Your task to perform on an android device: Check the news Image 0: 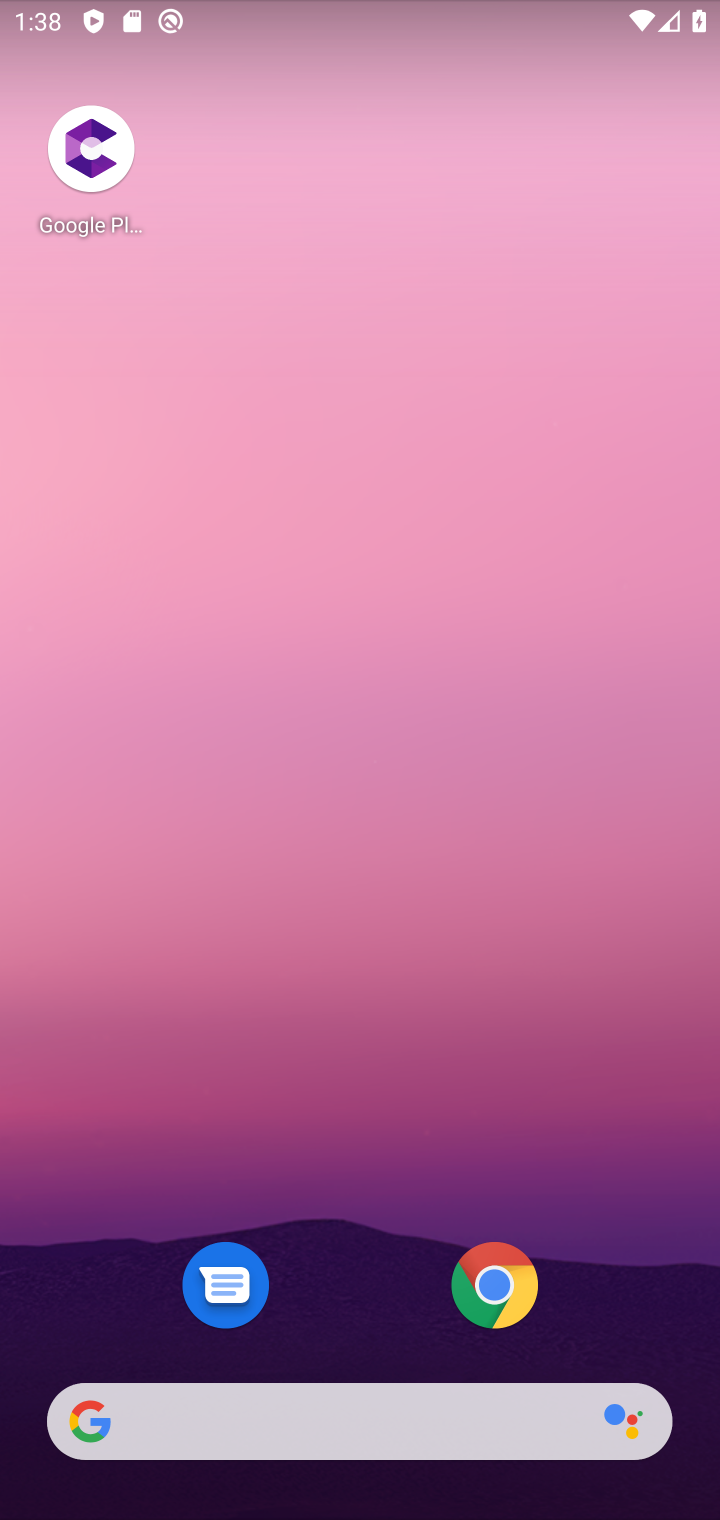
Step 0: drag from (13, 712) to (685, 810)
Your task to perform on an android device: Check the news Image 1: 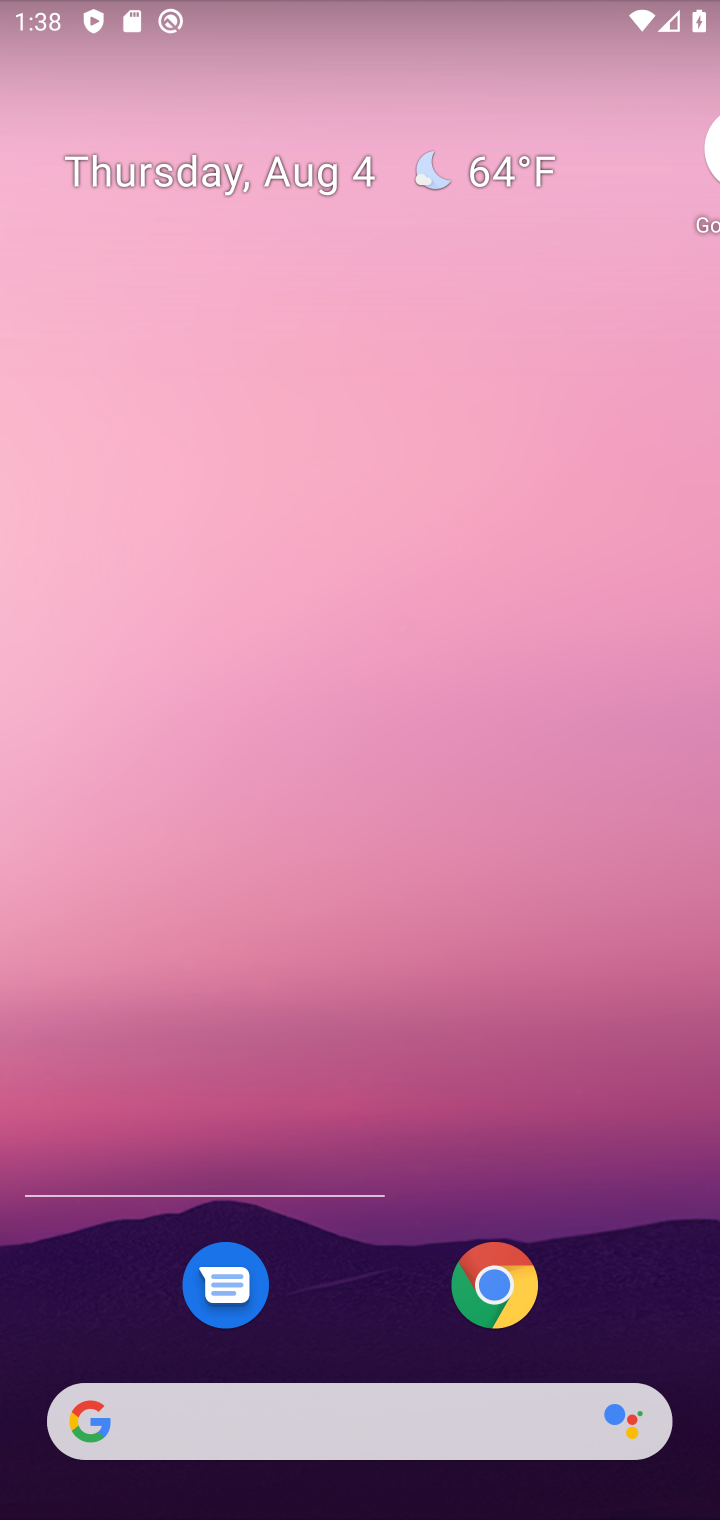
Step 1: task complete